Your task to perform on an android device: see tabs open on other devices in the chrome app Image 0: 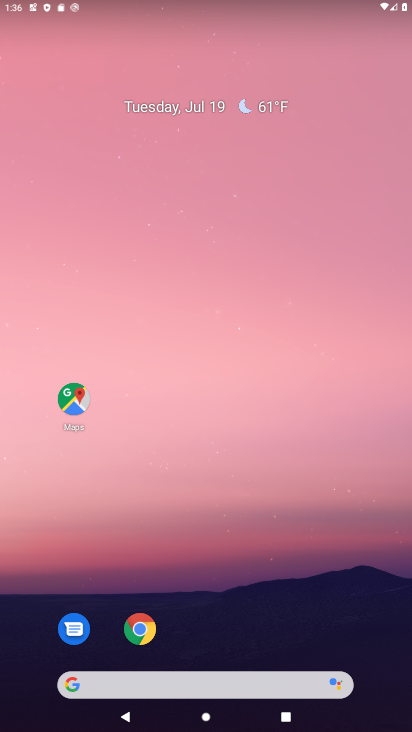
Step 0: click (147, 630)
Your task to perform on an android device: see tabs open on other devices in the chrome app Image 1: 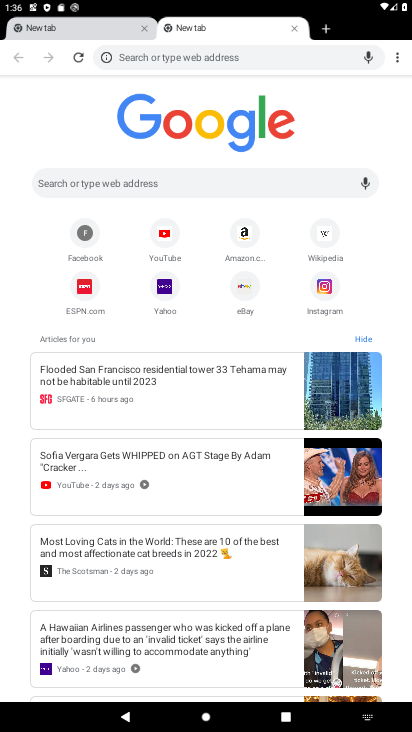
Step 1: task complete